Your task to perform on an android device: Open Google Maps Image 0: 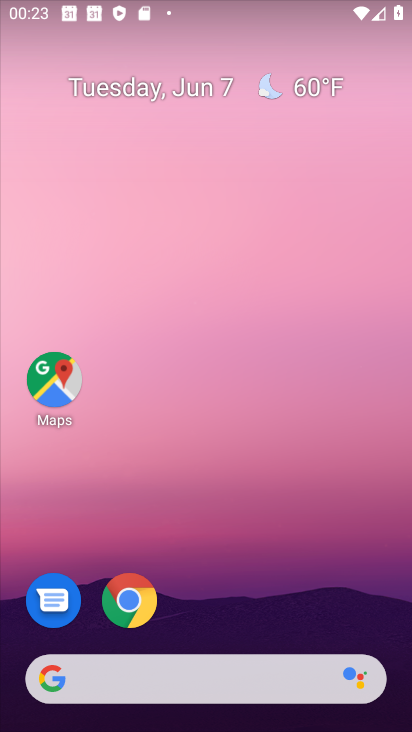
Step 0: drag from (220, 726) to (221, 125)
Your task to perform on an android device: Open Google Maps Image 1: 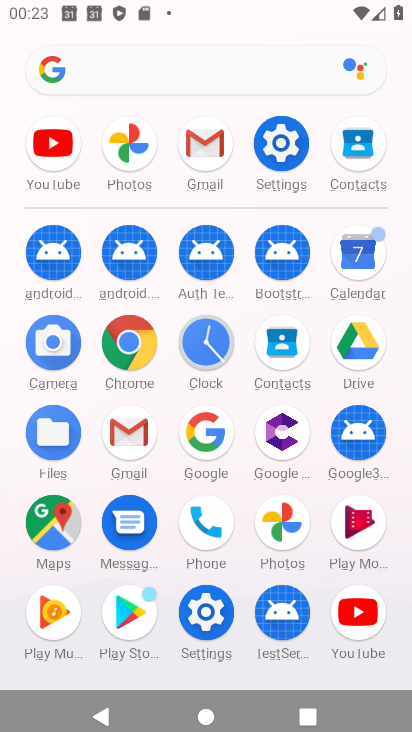
Step 1: click (57, 519)
Your task to perform on an android device: Open Google Maps Image 2: 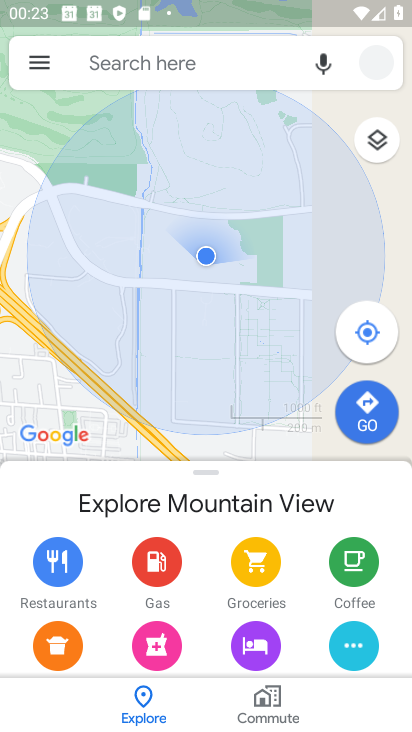
Step 2: task complete